Your task to perform on an android device: open app "Skype" (install if not already installed) Image 0: 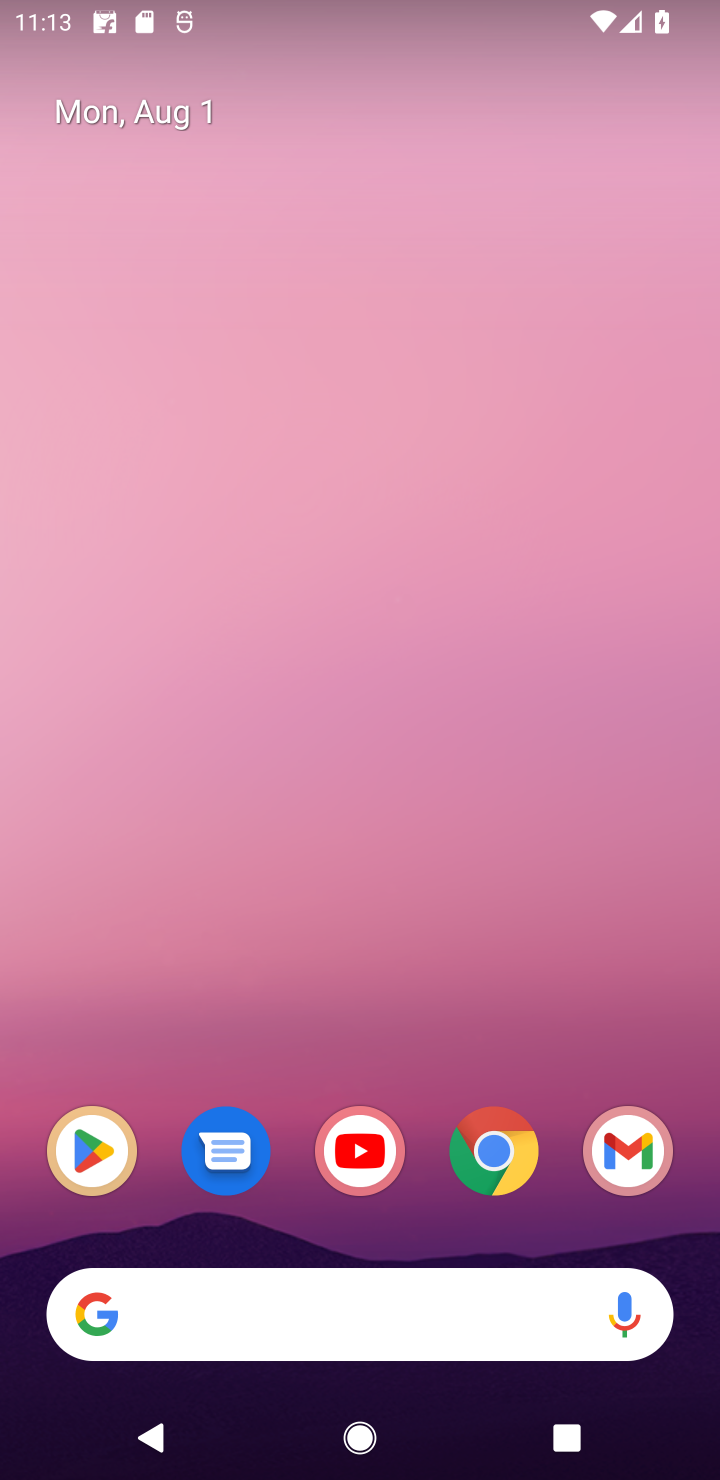
Step 0: click (100, 1124)
Your task to perform on an android device: open app "Skype" (install if not already installed) Image 1: 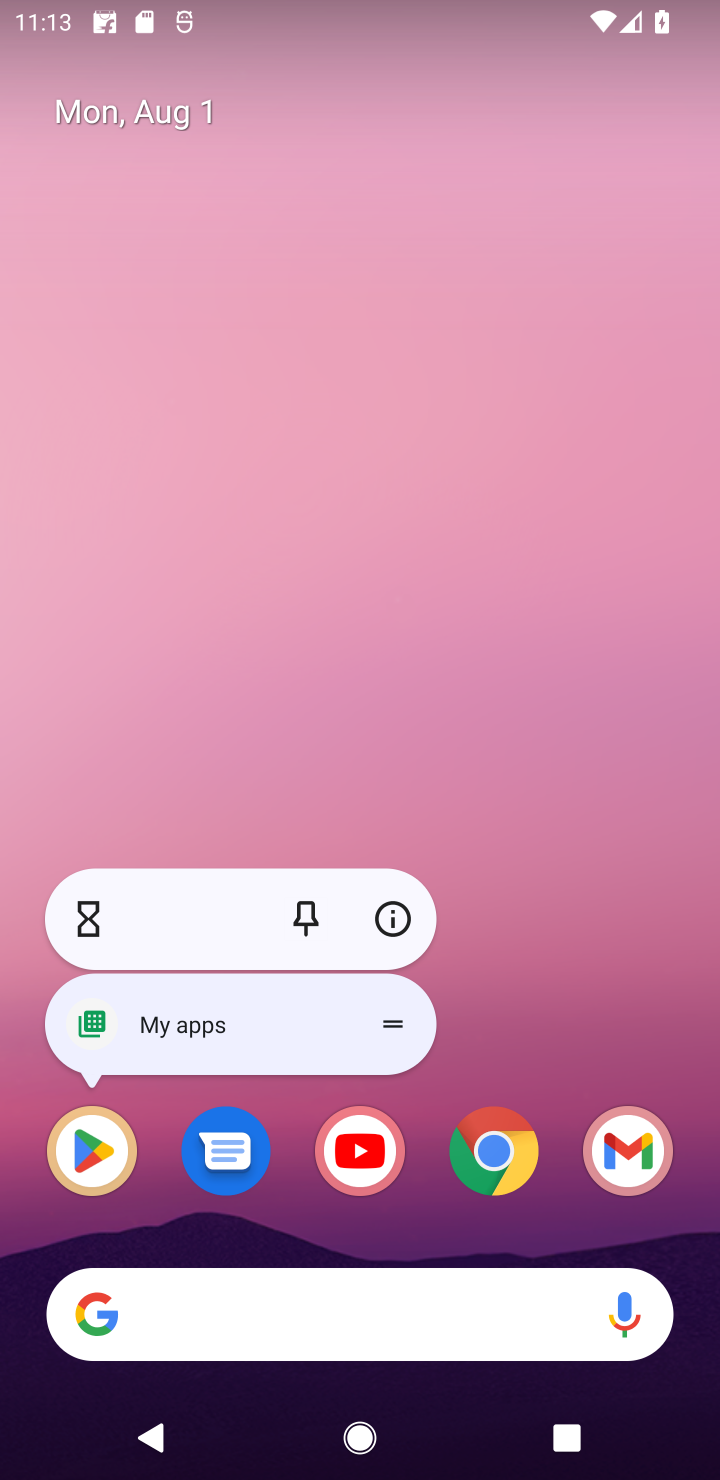
Step 1: click (100, 1128)
Your task to perform on an android device: open app "Skype" (install if not already installed) Image 2: 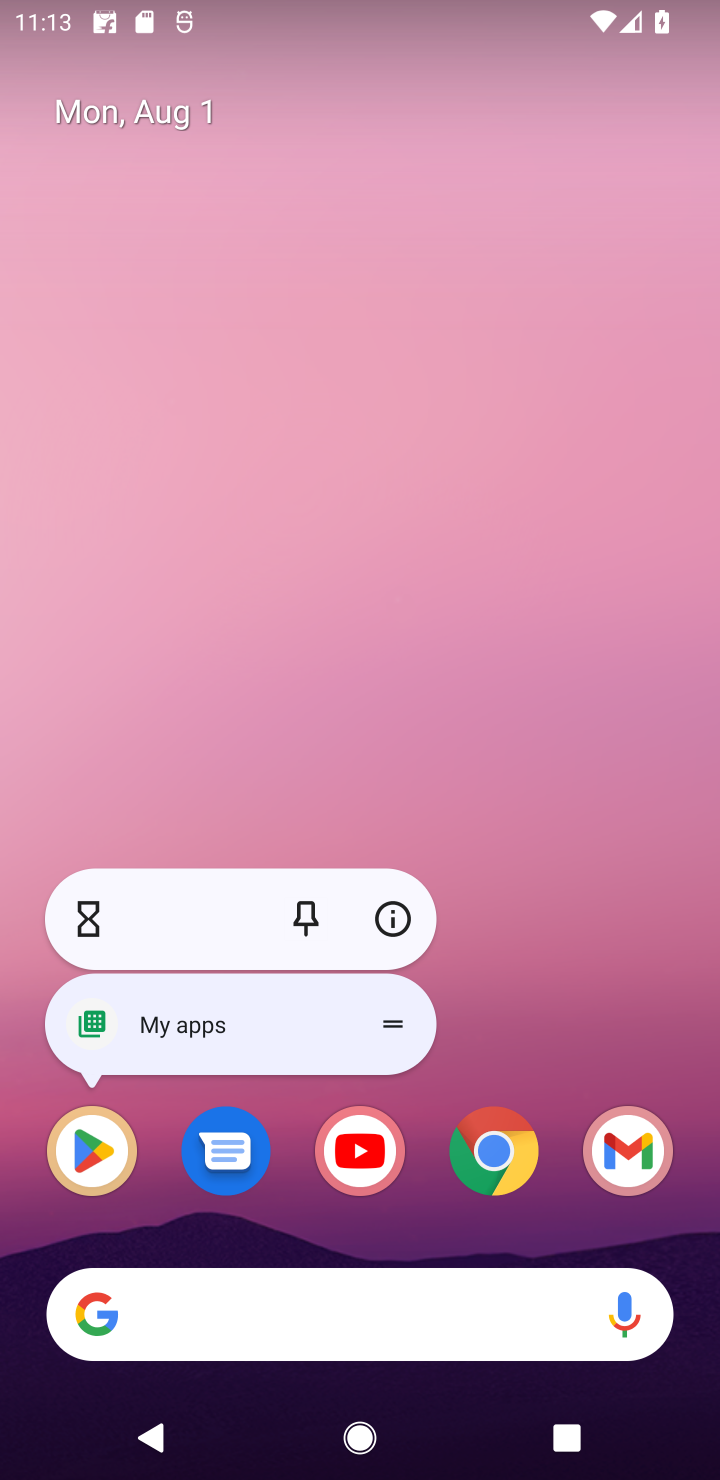
Step 2: click (100, 1154)
Your task to perform on an android device: open app "Skype" (install if not already installed) Image 3: 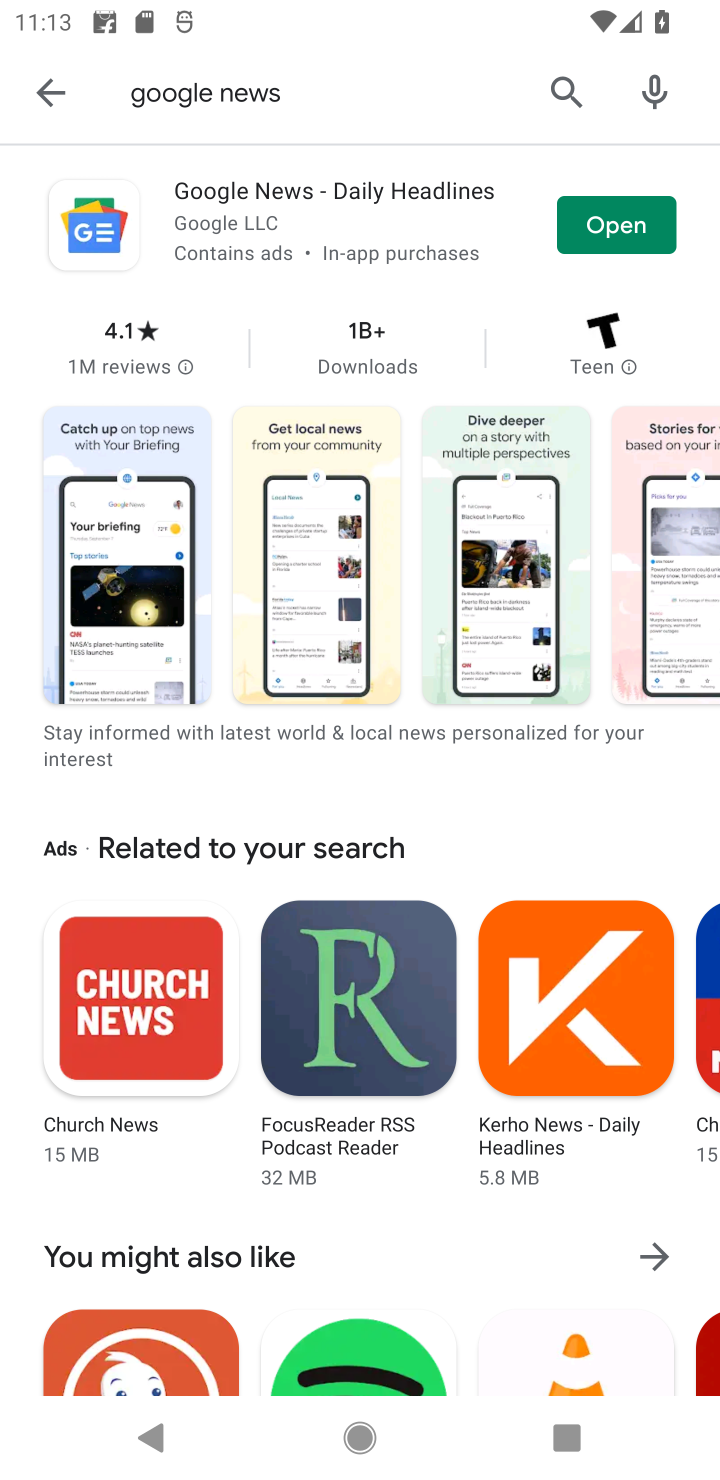
Step 3: click (545, 79)
Your task to perform on an android device: open app "Skype" (install if not already installed) Image 4: 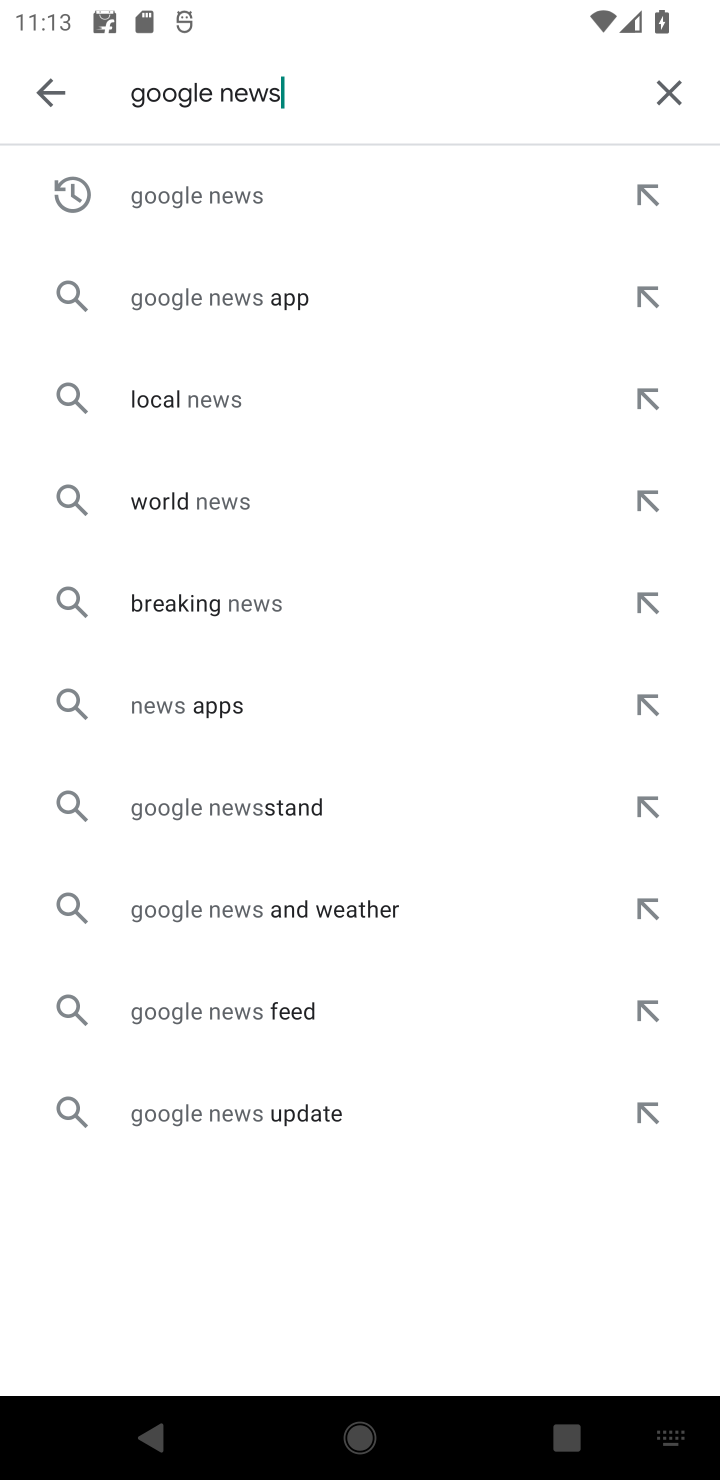
Step 4: click (658, 87)
Your task to perform on an android device: open app "Skype" (install if not already installed) Image 5: 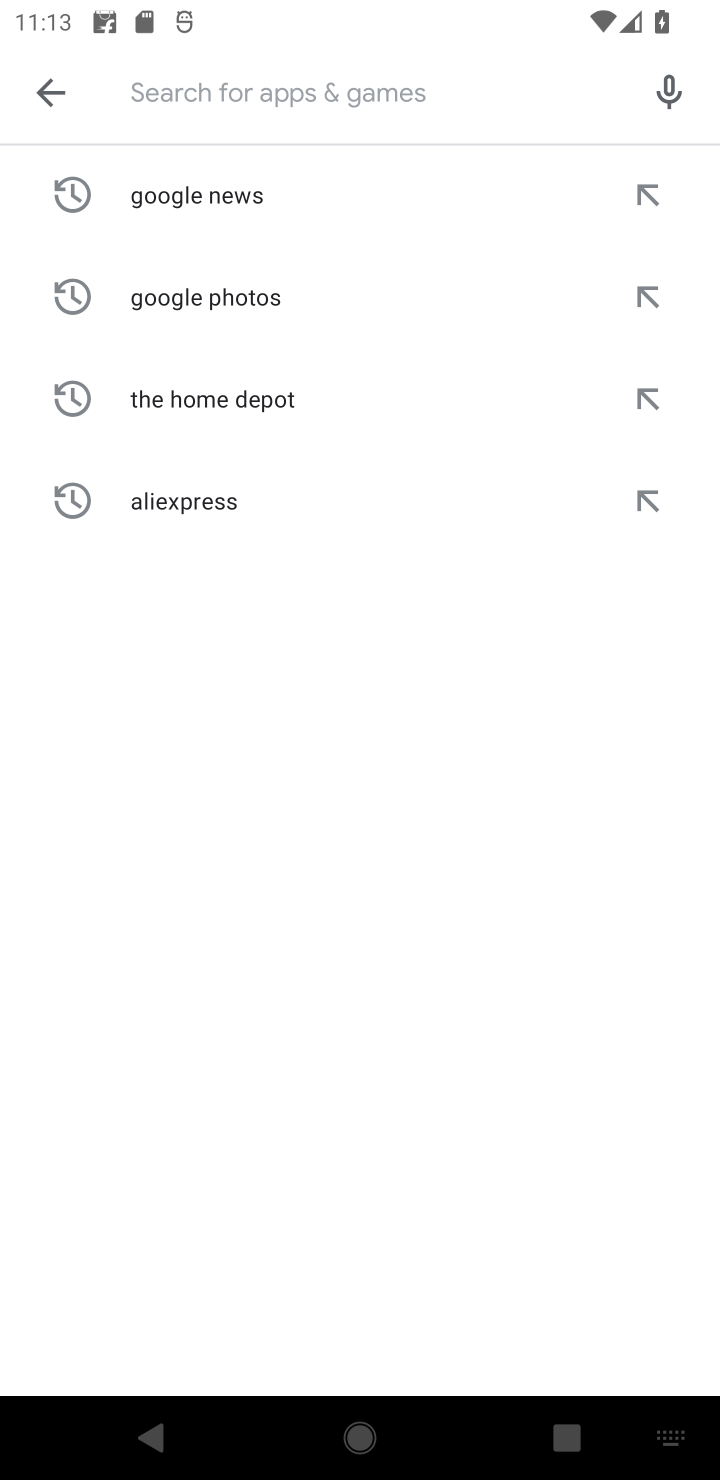
Step 5: type "Skype"
Your task to perform on an android device: open app "Skype" (install if not already installed) Image 6: 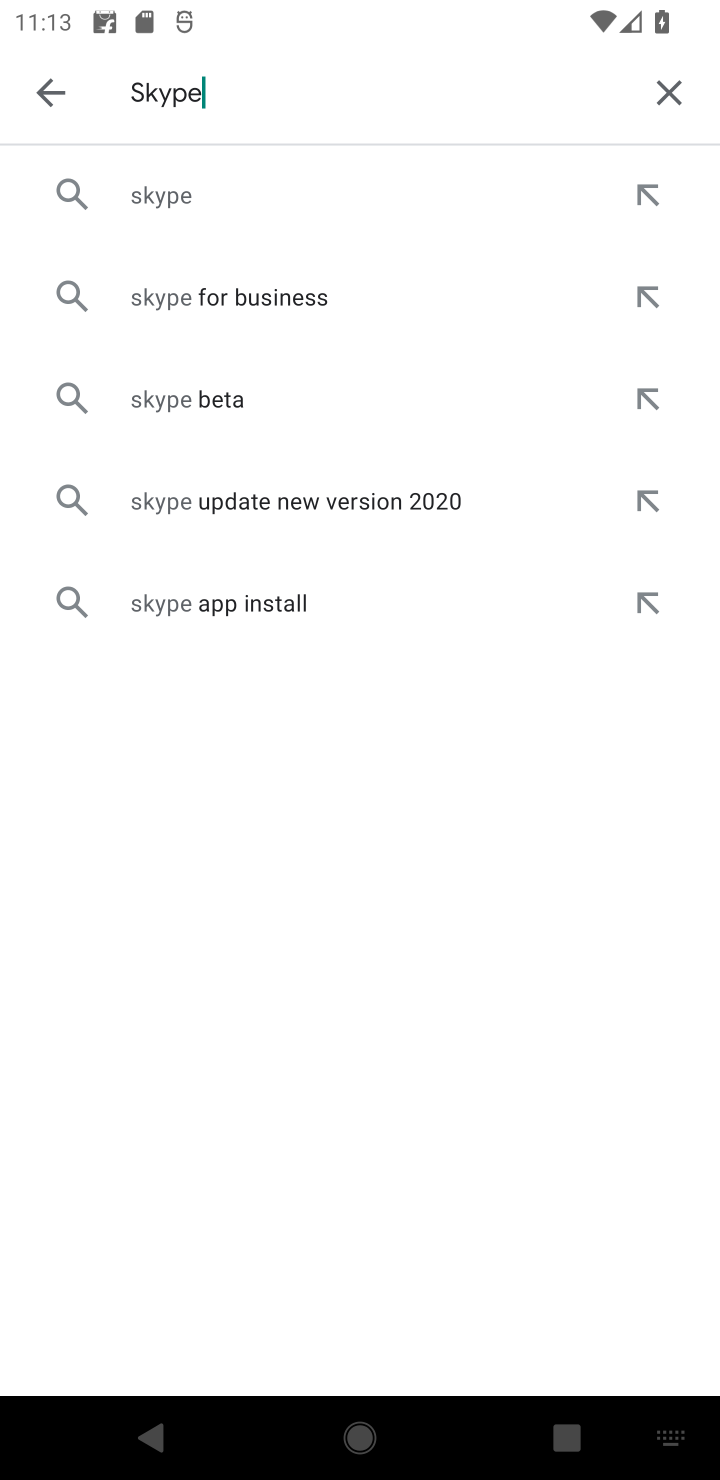
Step 6: click (264, 208)
Your task to perform on an android device: open app "Skype" (install if not already installed) Image 7: 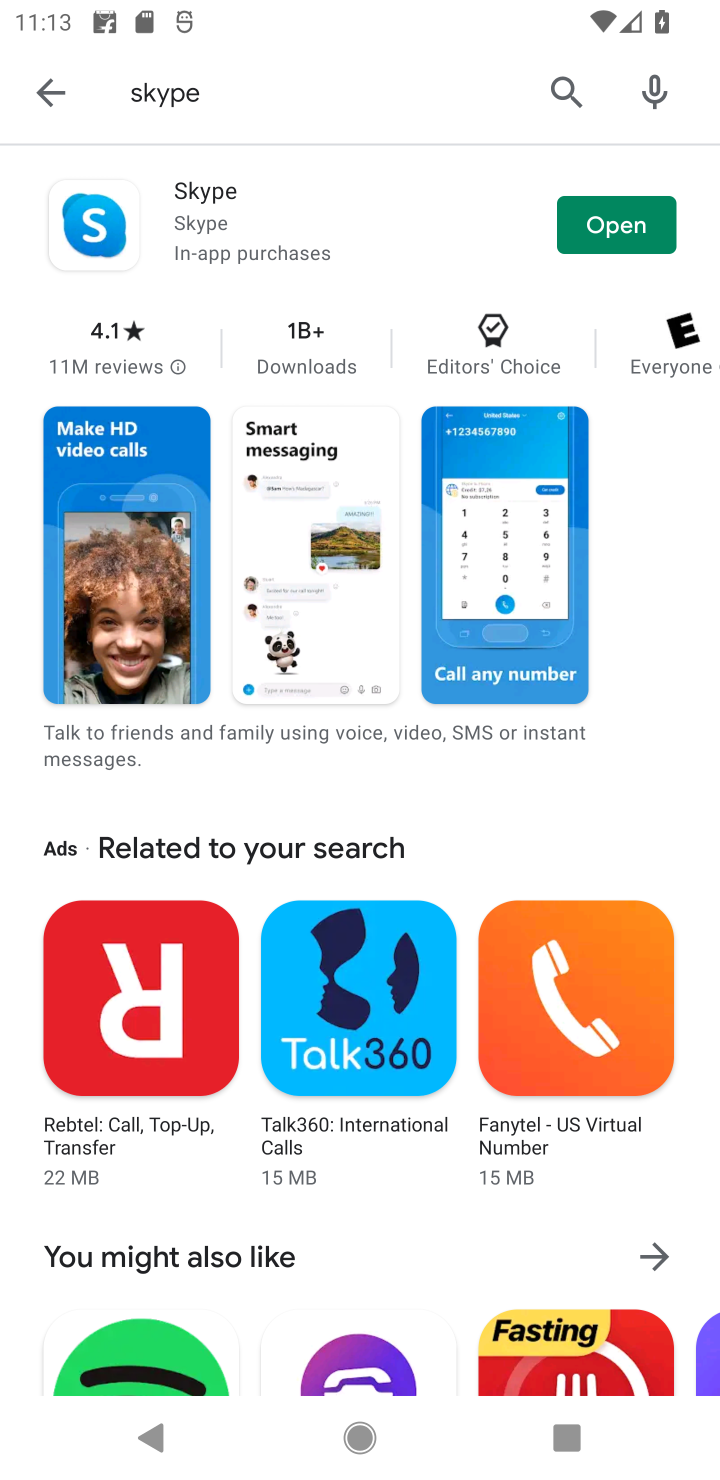
Step 7: click (627, 224)
Your task to perform on an android device: open app "Skype" (install if not already installed) Image 8: 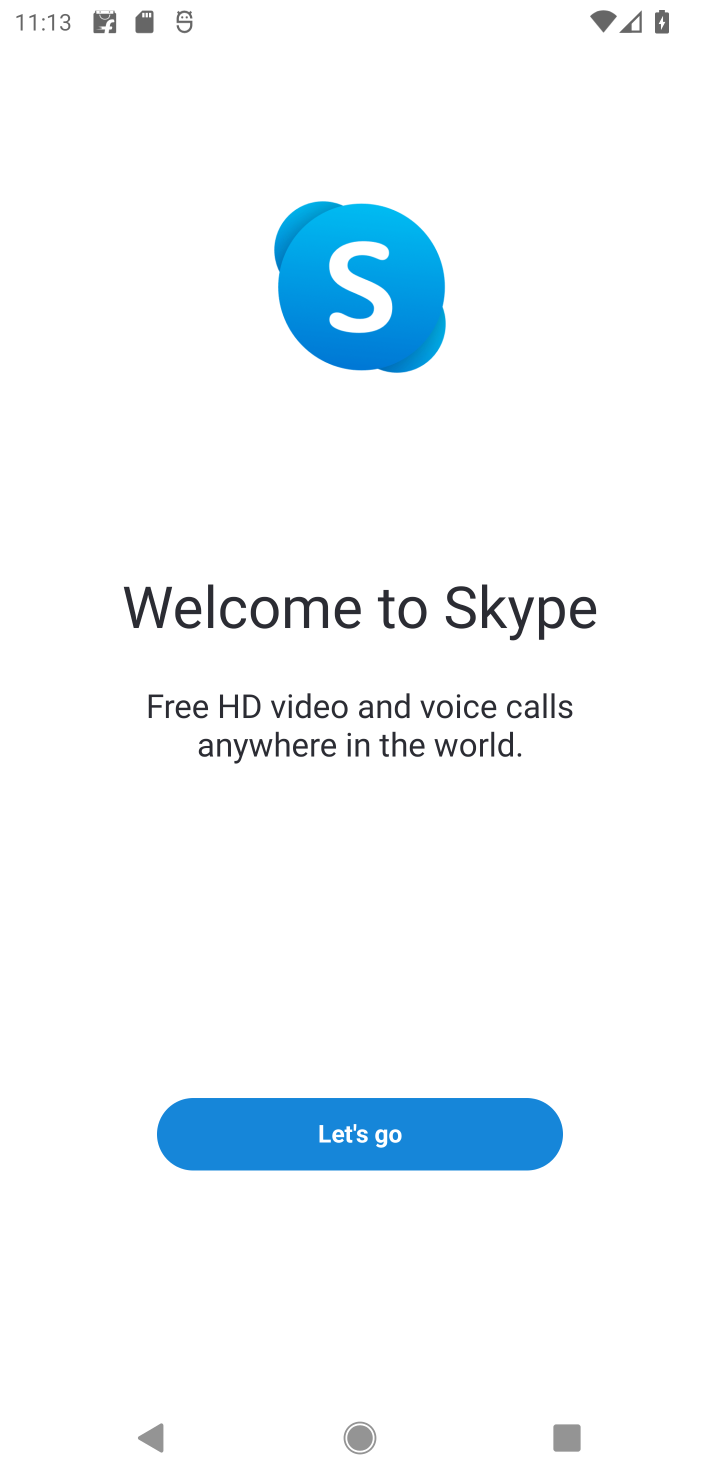
Step 8: task complete